Your task to perform on an android device: open chrome privacy settings Image 0: 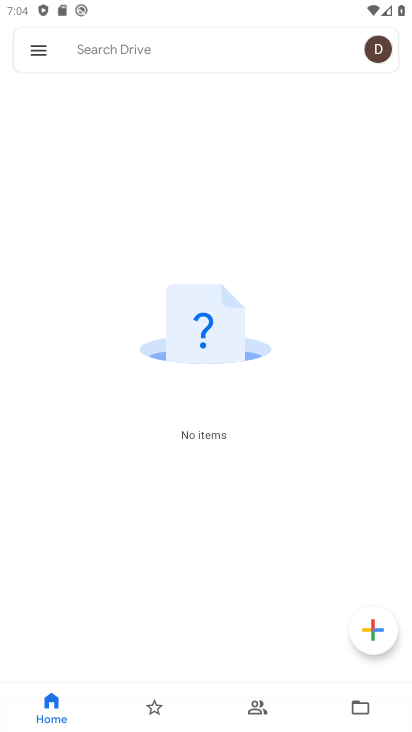
Step 0: press home button
Your task to perform on an android device: open chrome privacy settings Image 1: 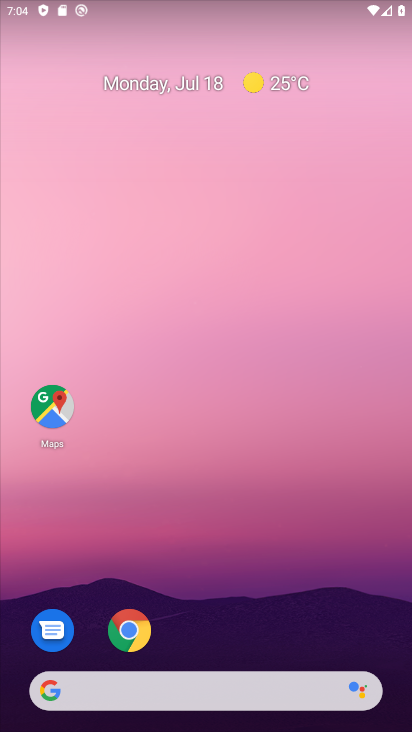
Step 1: click (130, 619)
Your task to perform on an android device: open chrome privacy settings Image 2: 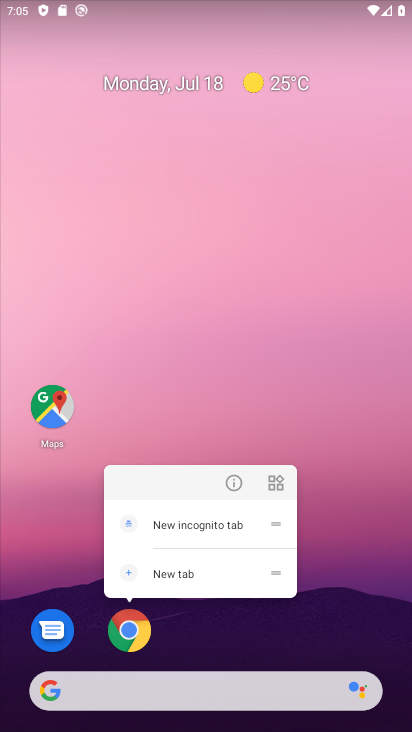
Step 2: click (132, 642)
Your task to perform on an android device: open chrome privacy settings Image 3: 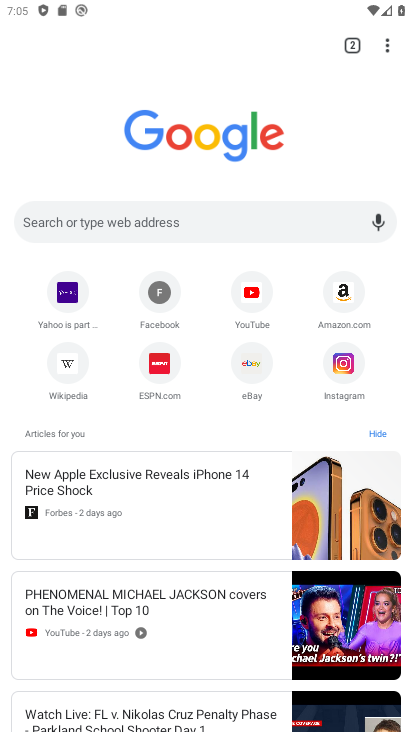
Step 3: click (382, 49)
Your task to perform on an android device: open chrome privacy settings Image 4: 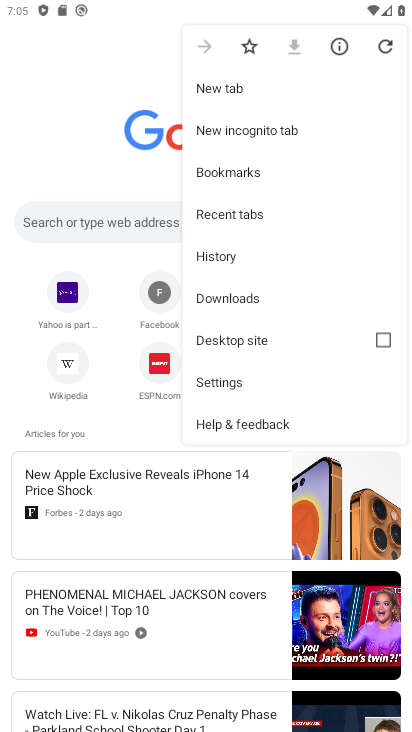
Step 4: click (210, 391)
Your task to perform on an android device: open chrome privacy settings Image 5: 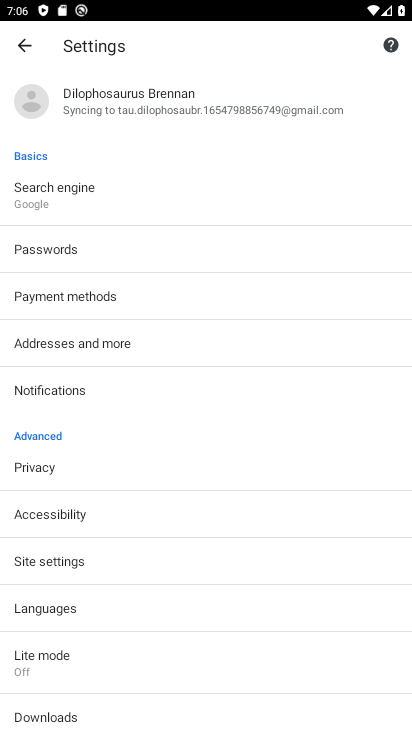
Step 5: click (88, 475)
Your task to perform on an android device: open chrome privacy settings Image 6: 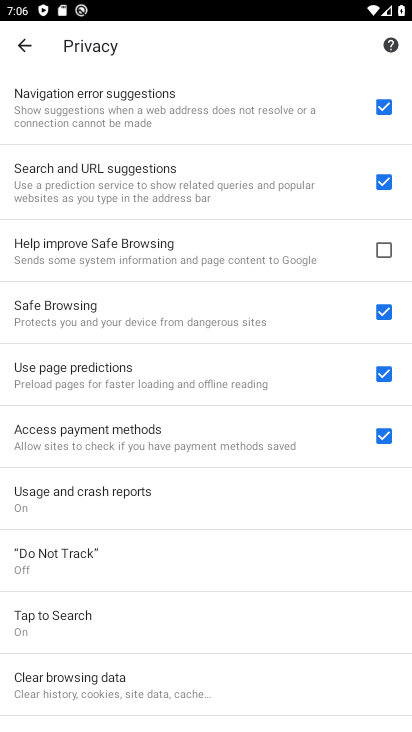
Step 6: task complete